Your task to perform on an android device: Open ESPN.com Image 0: 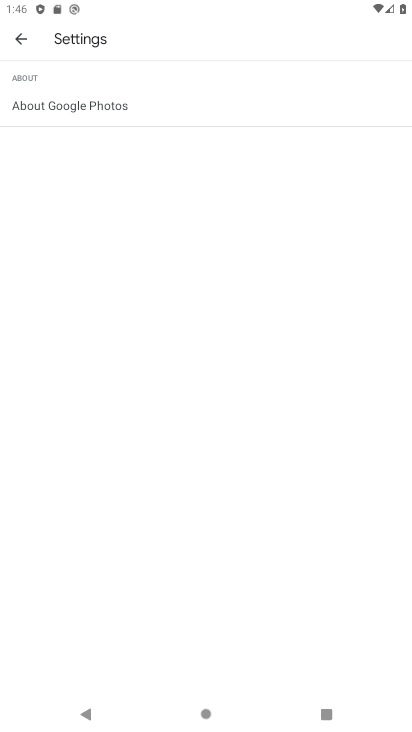
Step 0: press home button
Your task to perform on an android device: Open ESPN.com Image 1: 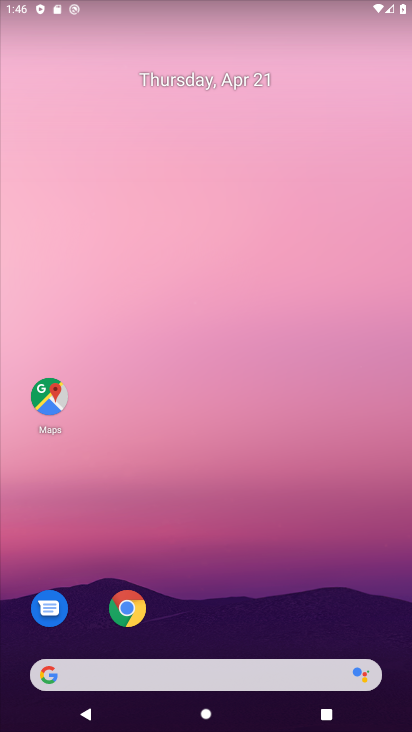
Step 1: drag from (260, 577) to (300, 12)
Your task to perform on an android device: Open ESPN.com Image 2: 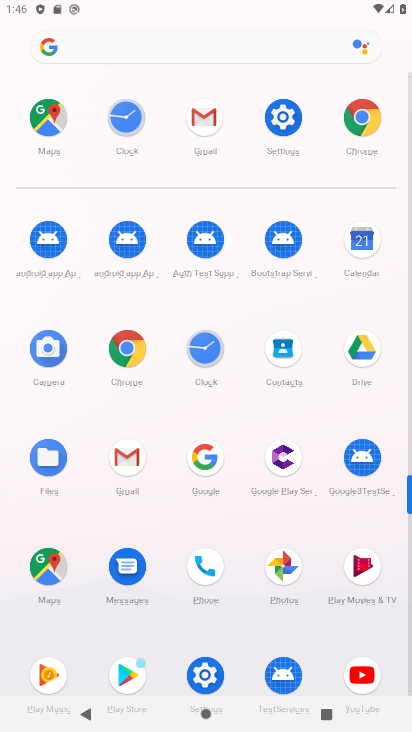
Step 2: click (364, 149)
Your task to perform on an android device: Open ESPN.com Image 3: 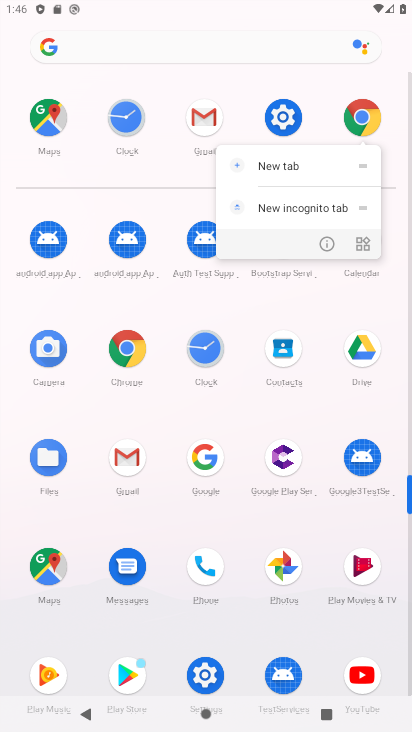
Step 3: click (351, 128)
Your task to perform on an android device: Open ESPN.com Image 4: 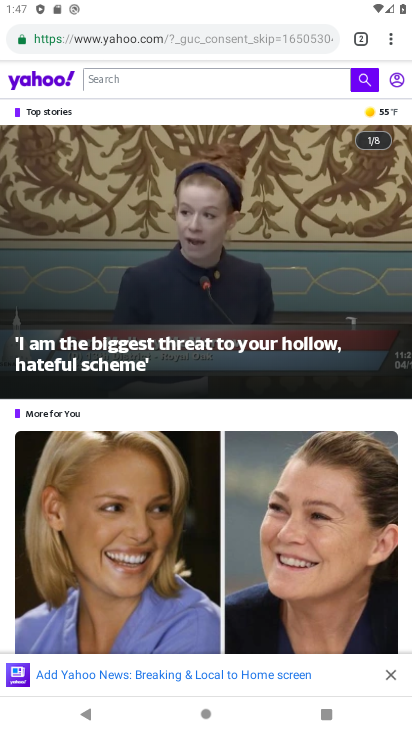
Step 4: drag from (387, 44) to (269, 77)
Your task to perform on an android device: Open ESPN.com Image 5: 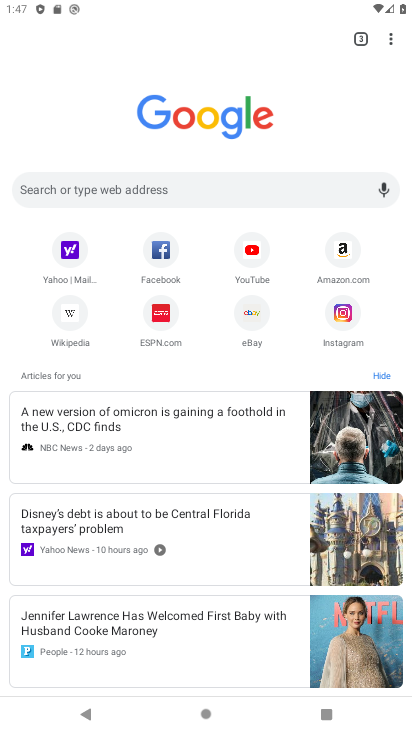
Step 5: click (145, 328)
Your task to perform on an android device: Open ESPN.com Image 6: 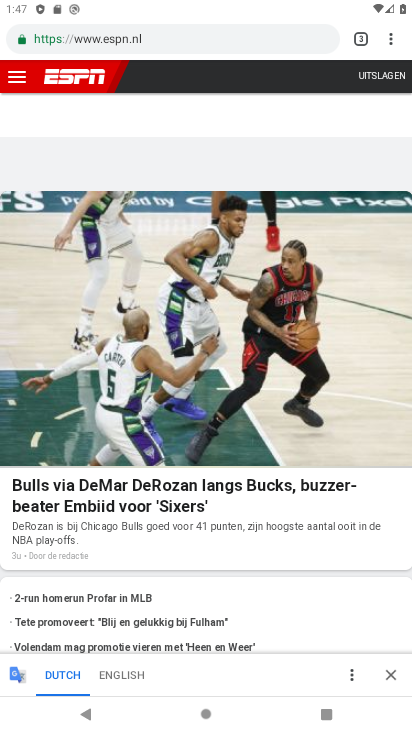
Step 6: task complete